Your task to perform on an android device: Open CNN.com Image 0: 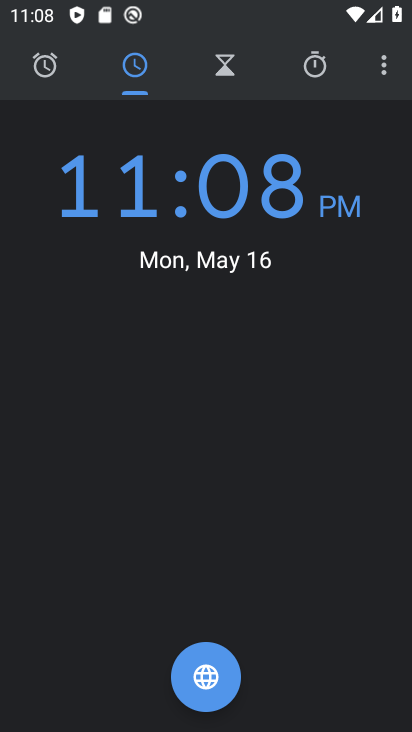
Step 0: press home button
Your task to perform on an android device: Open CNN.com Image 1: 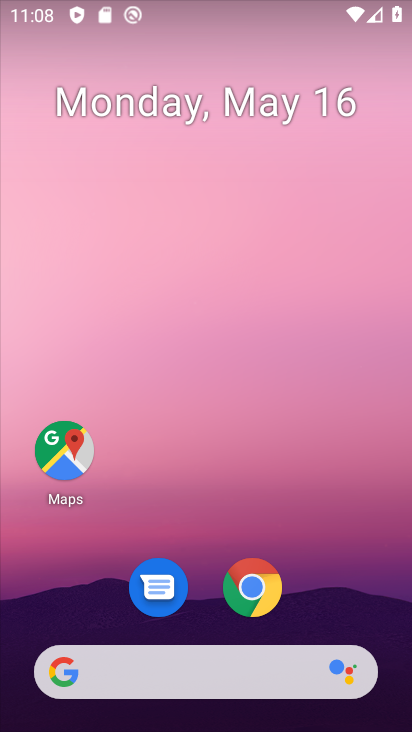
Step 1: click (266, 587)
Your task to perform on an android device: Open CNN.com Image 2: 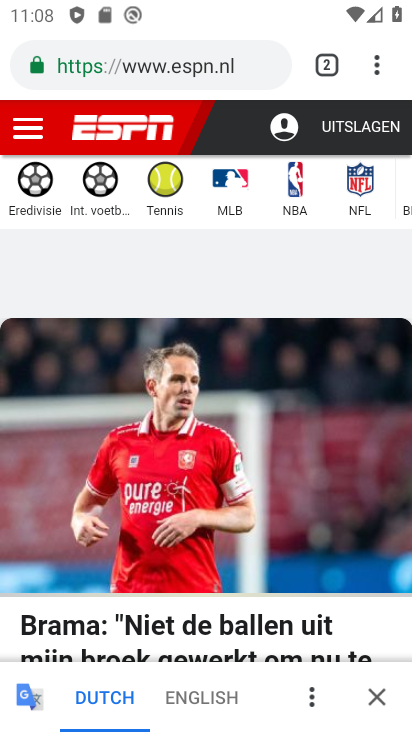
Step 2: click (373, 54)
Your task to perform on an android device: Open CNN.com Image 3: 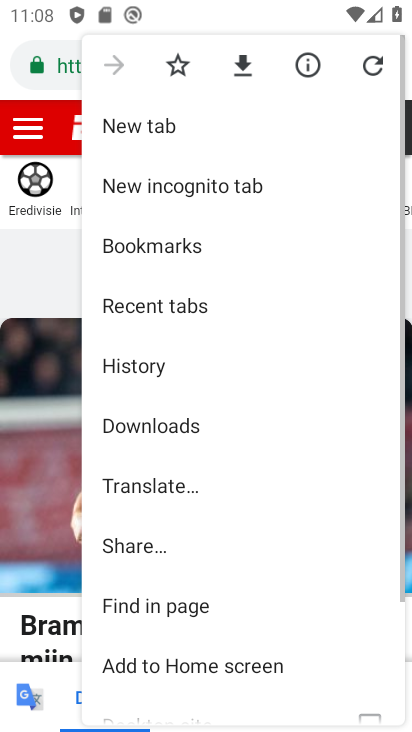
Step 3: click (143, 124)
Your task to perform on an android device: Open CNN.com Image 4: 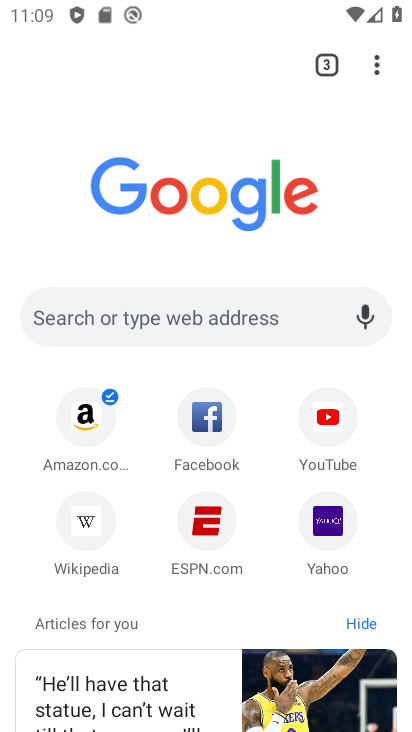
Step 4: click (259, 310)
Your task to perform on an android device: Open CNN.com Image 5: 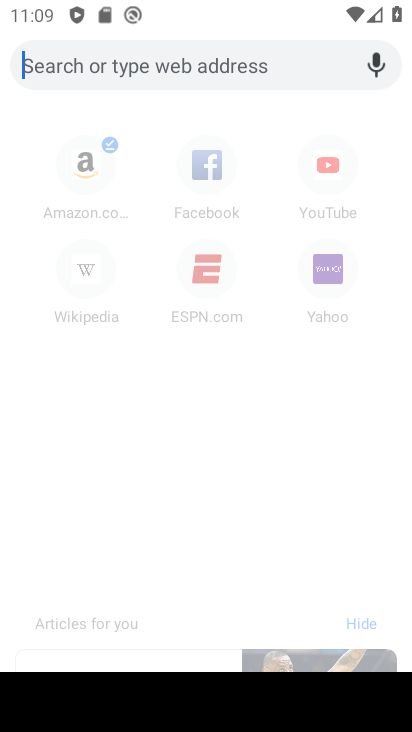
Step 5: type "CNN.com"
Your task to perform on an android device: Open CNN.com Image 6: 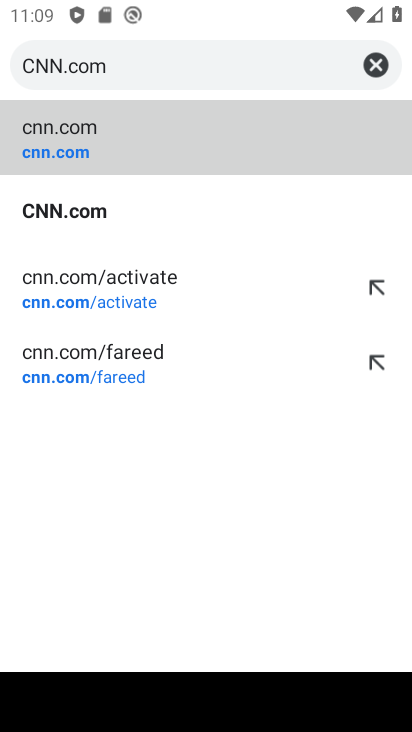
Step 6: click (101, 194)
Your task to perform on an android device: Open CNN.com Image 7: 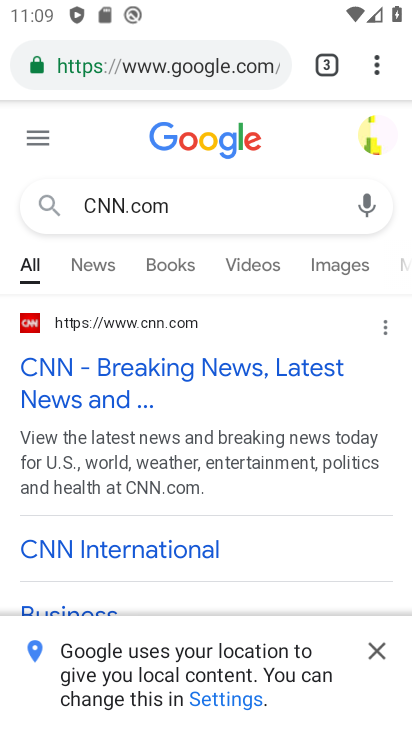
Step 7: task complete